Your task to perform on an android device: Check the news Image 0: 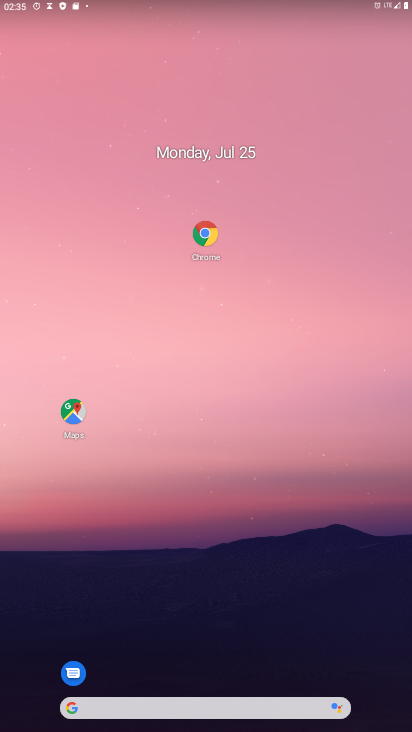
Step 0: drag from (254, 713) to (399, 0)
Your task to perform on an android device: Check the news Image 1: 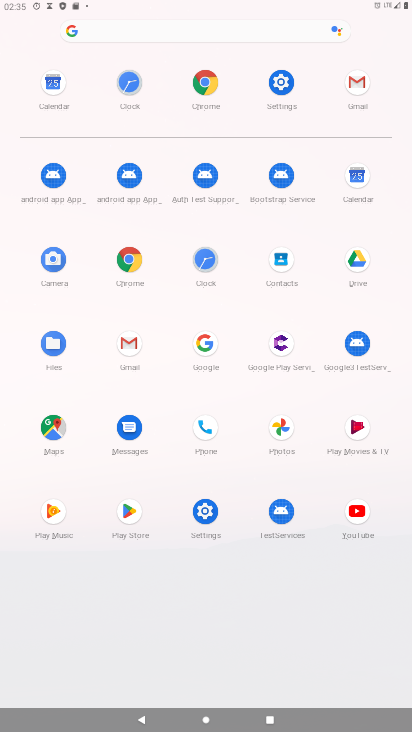
Step 1: click (135, 257)
Your task to perform on an android device: Check the news Image 2: 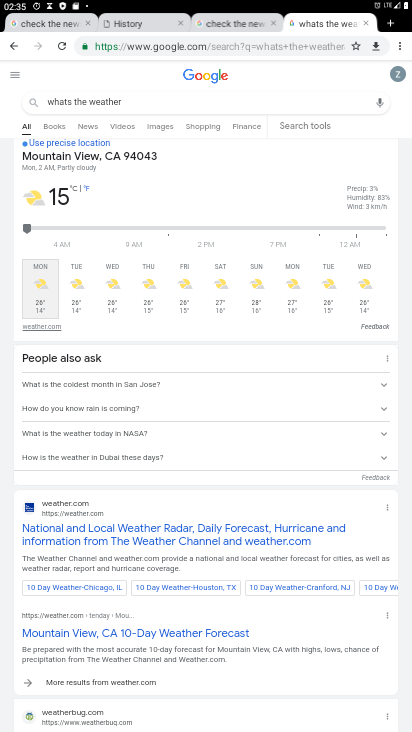
Step 2: click (188, 38)
Your task to perform on an android device: Check the news Image 3: 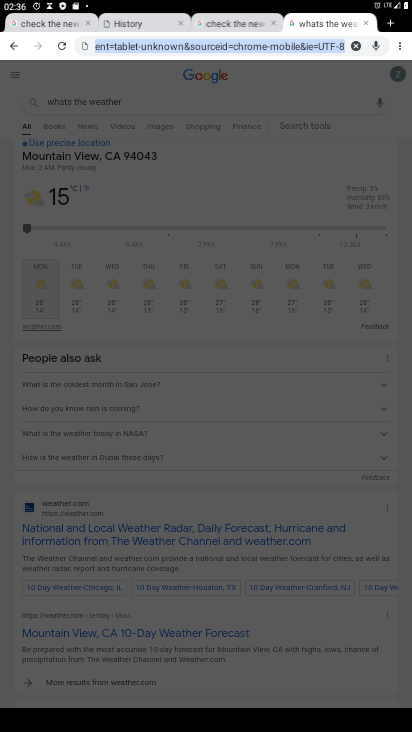
Step 3: type "check the news"
Your task to perform on an android device: Check the news Image 4: 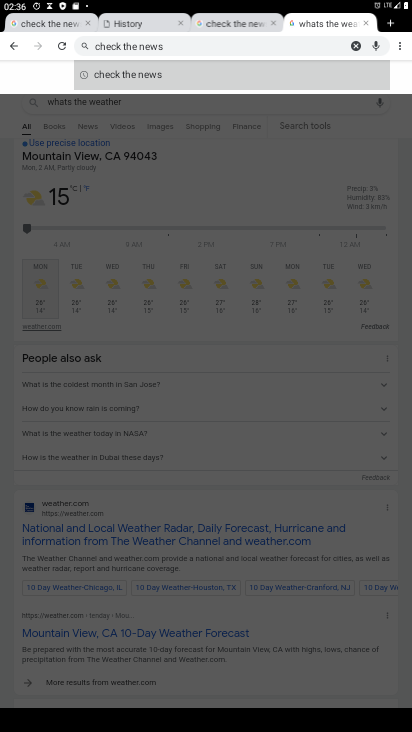
Step 4: click (183, 75)
Your task to perform on an android device: Check the news Image 5: 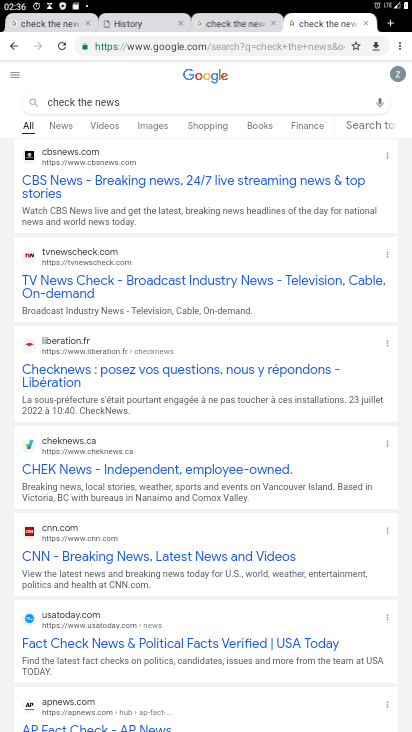
Step 5: task complete